Your task to perform on an android device: Open the map Image 0: 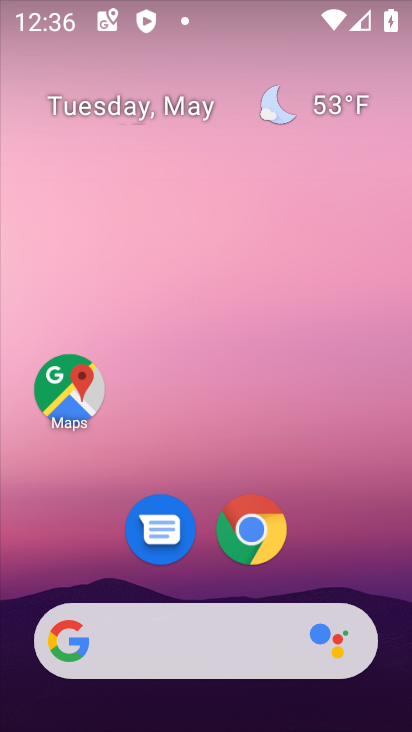
Step 0: drag from (224, 724) to (217, 249)
Your task to perform on an android device: Open the map Image 1: 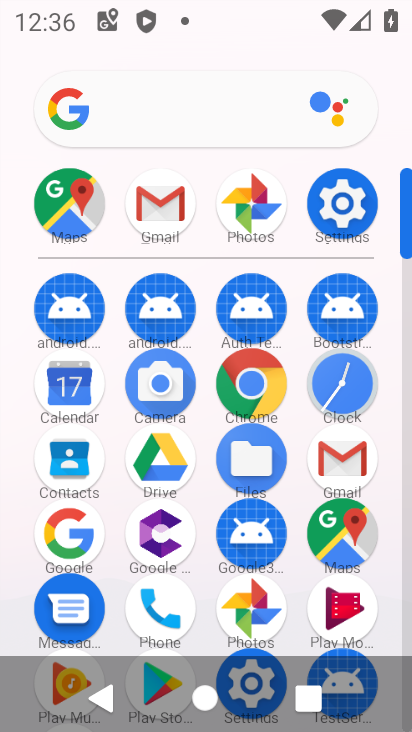
Step 1: click (346, 532)
Your task to perform on an android device: Open the map Image 2: 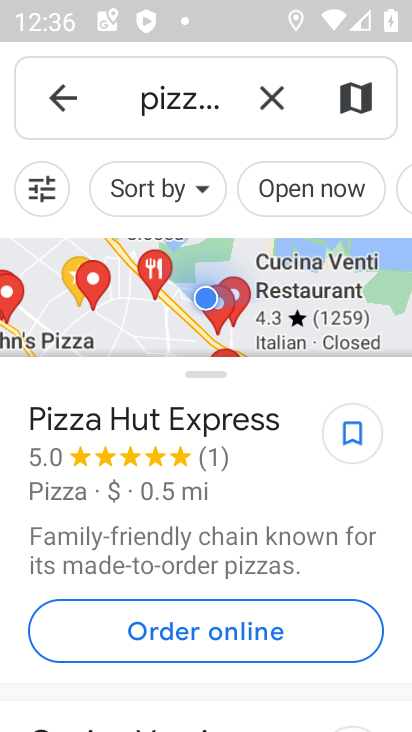
Step 2: task complete